Your task to perform on an android device: Turn off the flashlight Image 0: 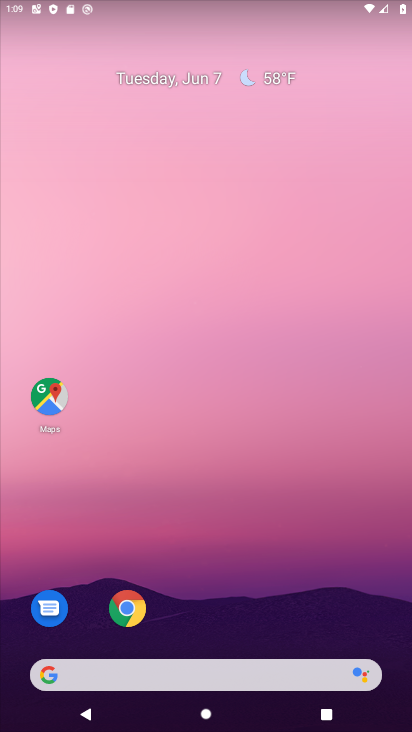
Step 0: drag from (282, 543) to (148, 0)
Your task to perform on an android device: Turn off the flashlight Image 1: 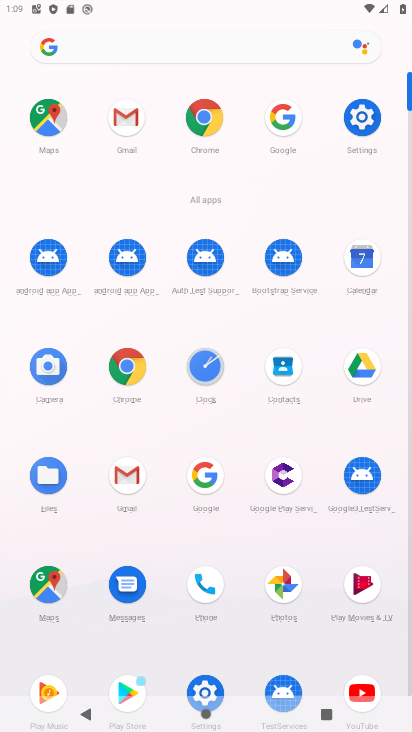
Step 1: click (361, 92)
Your task to perform on an android device: Turn off the flashlight Image 2: 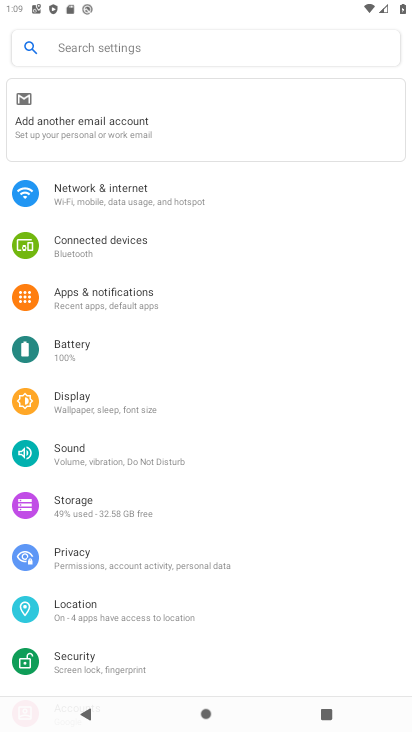
Step 2: click (99, 404)
Your task to perform on an android device: Turn off the flashlight Image 3: 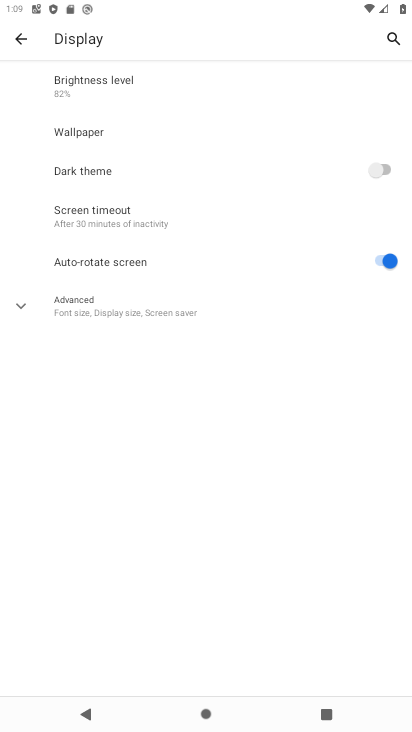
Step 3: task complete